Your task to perform on an android device: Show me the alarms in the clock app Image 0: 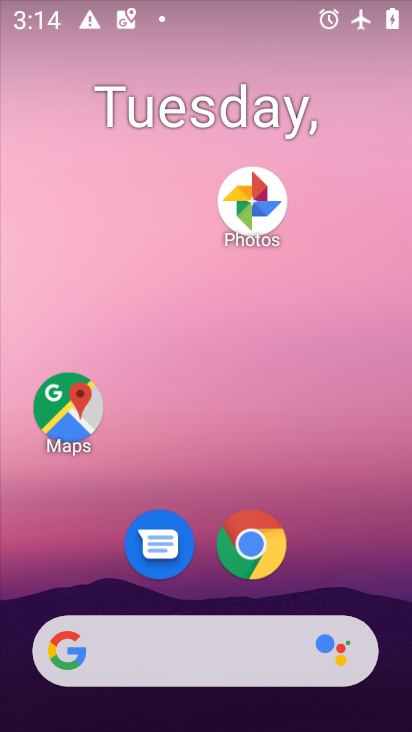
Step 0: drag from (363, 498) to (337, 51)
Your task to perform on an android device: Show me the alarms in the clock app Image 1: 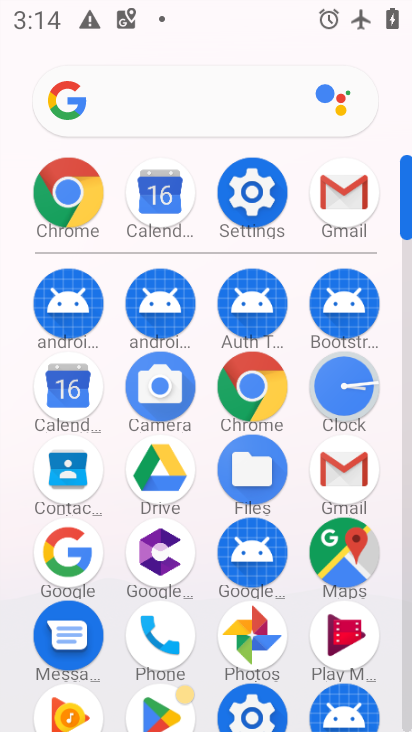
Step 1: click (334, 376)
Your task to perform on an android device: Show me the alarms in the clock app Image 2: 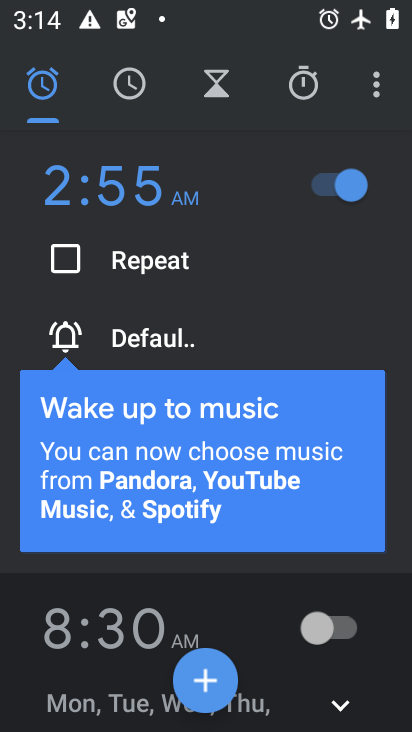
Step 2: click (367, 80)
Your task to perform on an android device: Show me the alarms in the clock app Image 3: 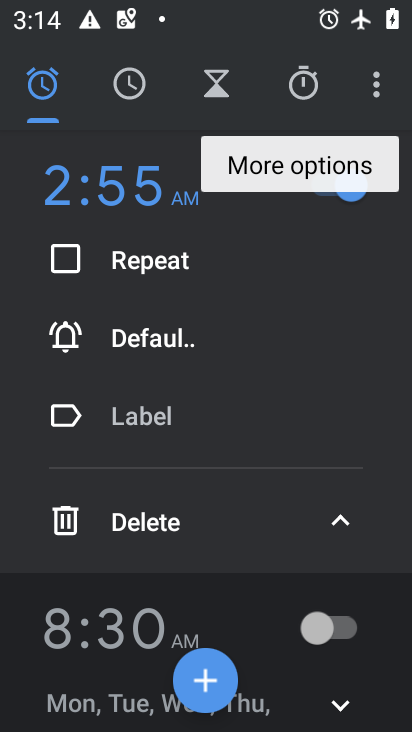
Step 3: click (60, 102)
Your task to perform on an android device: Show me the alarms in the clock app Image 4: 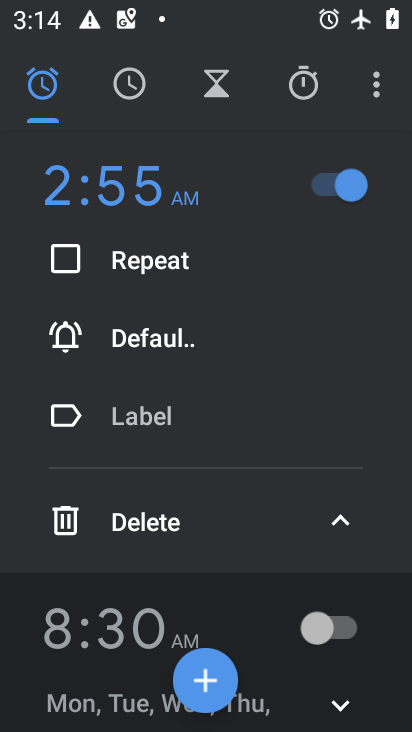
Step 4: task complete